Your task to perform on an android device: visit the assistant section in the google photos Image 0: 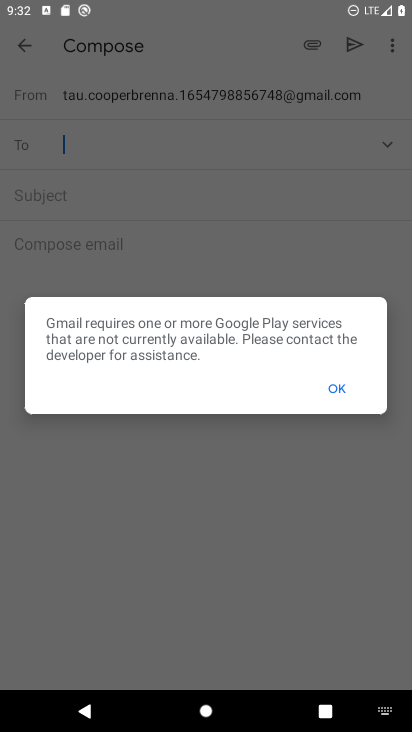
Step 0: press home button
Your task to perform on an android device: visit the assistant section in the google photos Image 1: 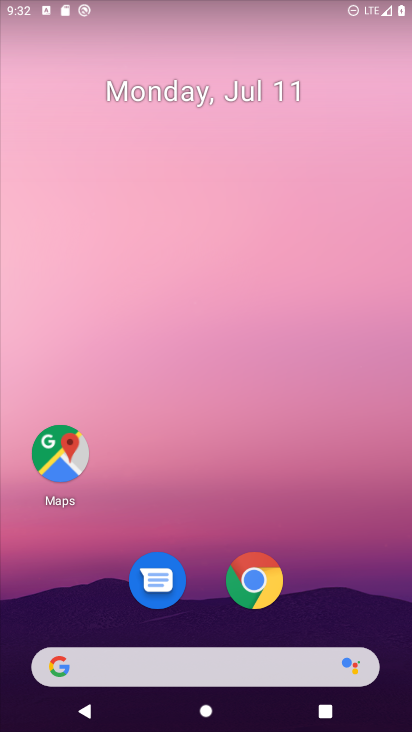
Step 1: drag from (306, 534) to (266, 37)
Your task to perform on an android device: visit the assistant section in the google photos Image 2: 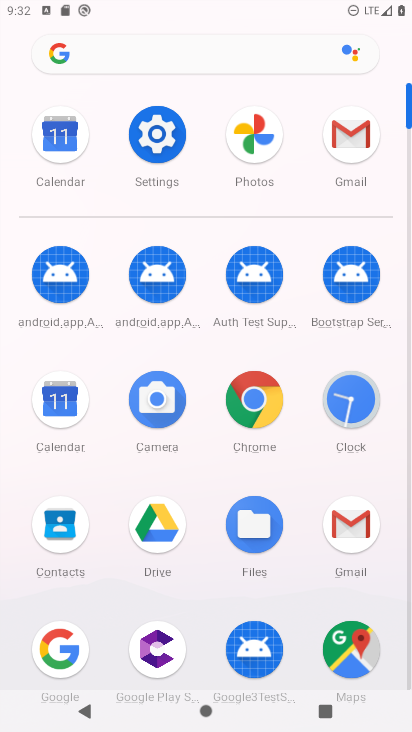
Step 2: click (256, 144)
Your task to perform on an android device: visit the assistant section in the google photos Image 3: 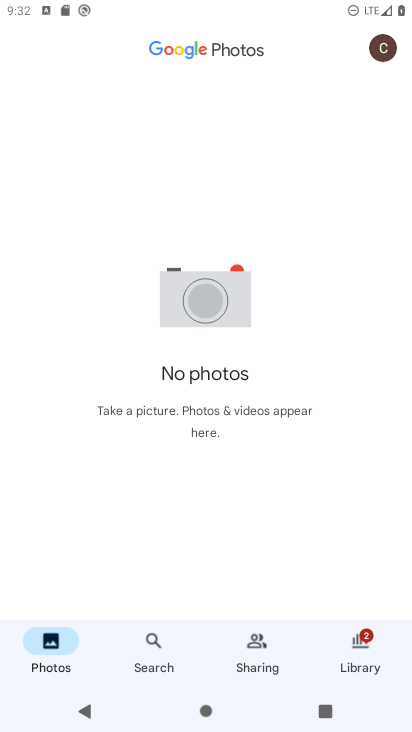
Step 3: click (149, 652)
Your task to perform on an android device: visit the assistant section in the google photos Image 4: 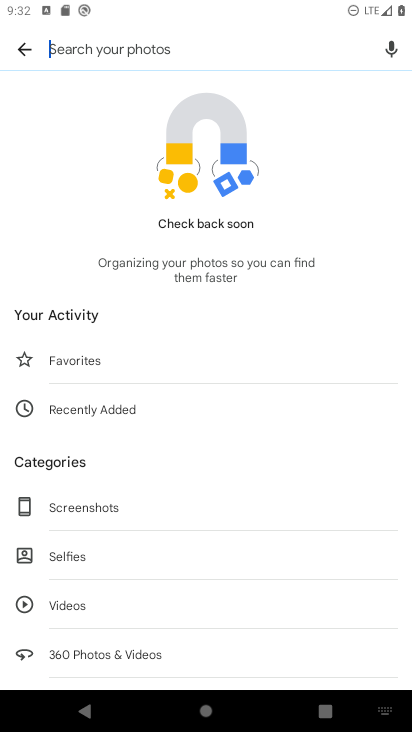
Step 4: drag from (237, 477) to (244, 58)
Your task to perform on an android device: visit the assistant section in the google photos Image 5: 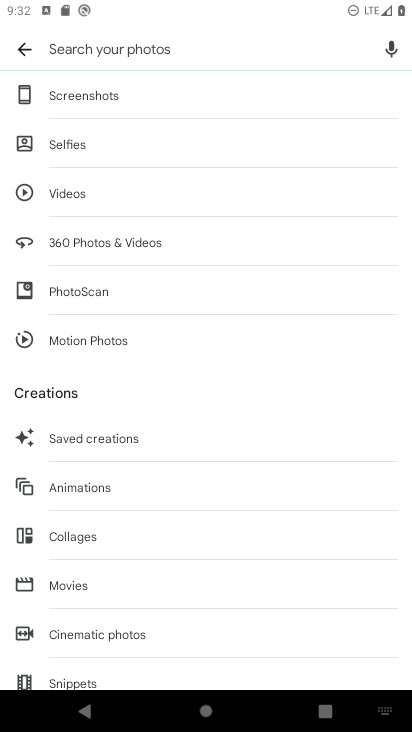
Step 5: drag from (214, 466) to (191, 186)
Your task to perform on an android device: visit the assistant section in the google photos Image 6: 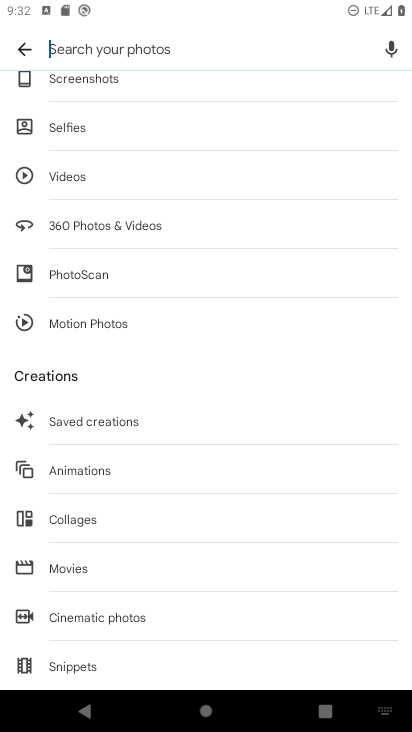
Step 6: type "assistant section"
Your task to perform on an android device: visit the assistant section in the google photos Image 7: 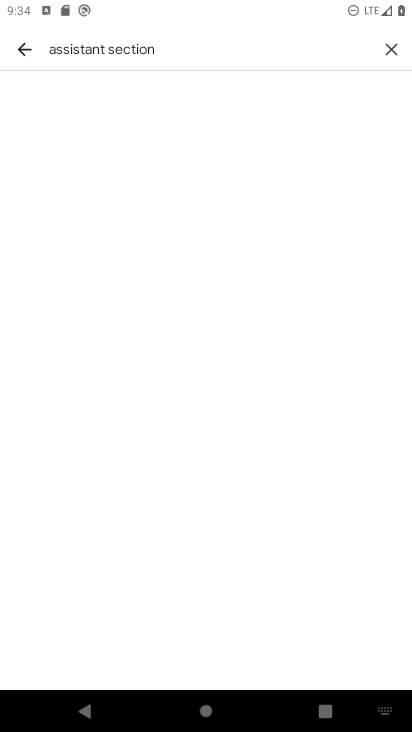
Step 7: task complete